Your task to perform on an android device: Go to battery settings Image 0: 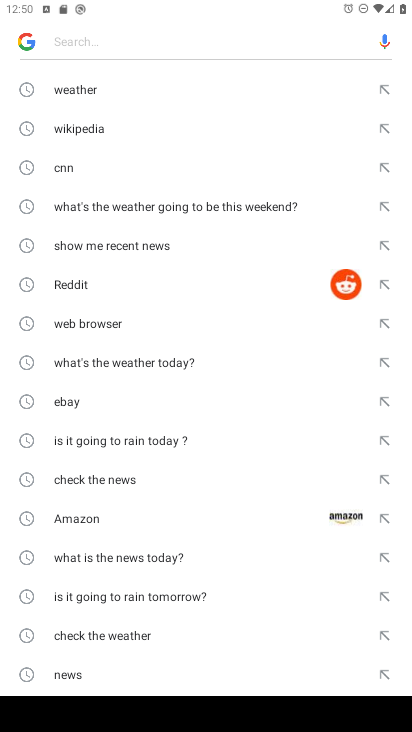
Step 0: drag from (309, 5) to (386, 552)
Your task to perform on an android device: Go to battery settings Image 1: 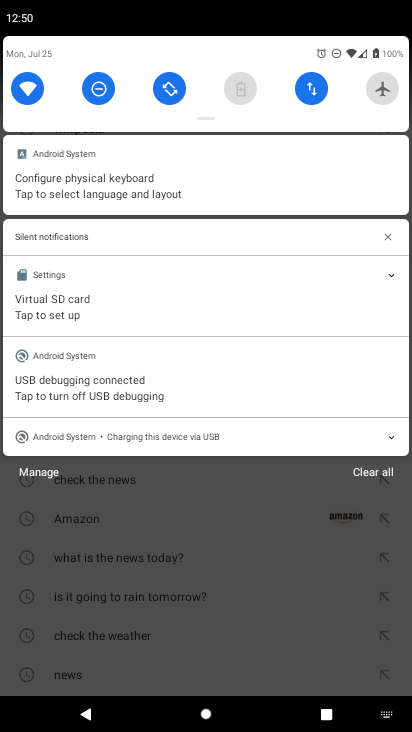
Step 1: click (243, 88)
Your task to perform on an android device: Go to battery settings Image 2: 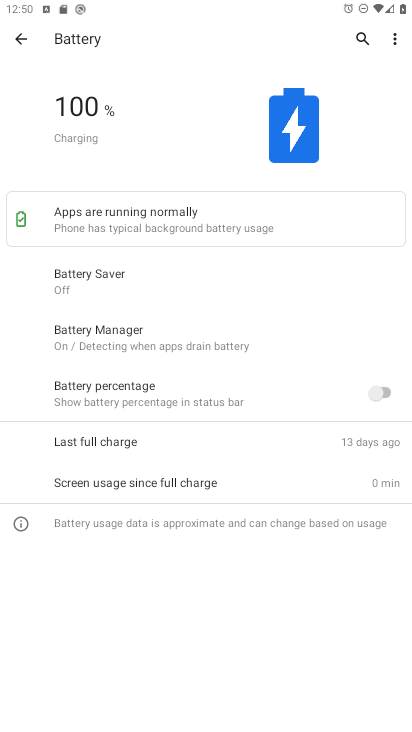
Step 2: task complete